Your task to perform on an android device: toggle pop-ups in chrome Image 0: 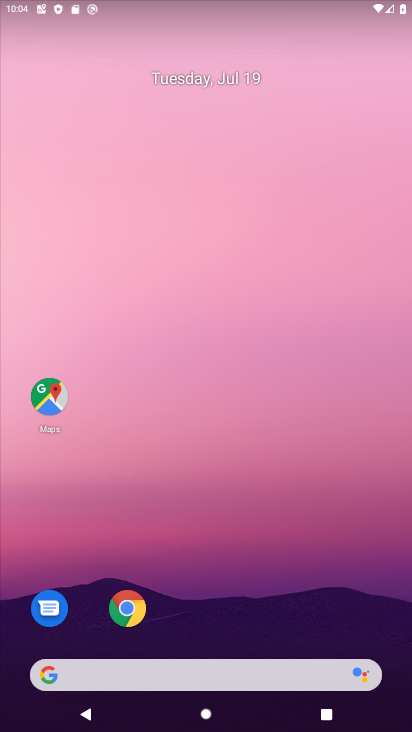
Step 0: click (131, 615)
Your task to perform on an android device: toggle pop-ups in chrome Image 1: 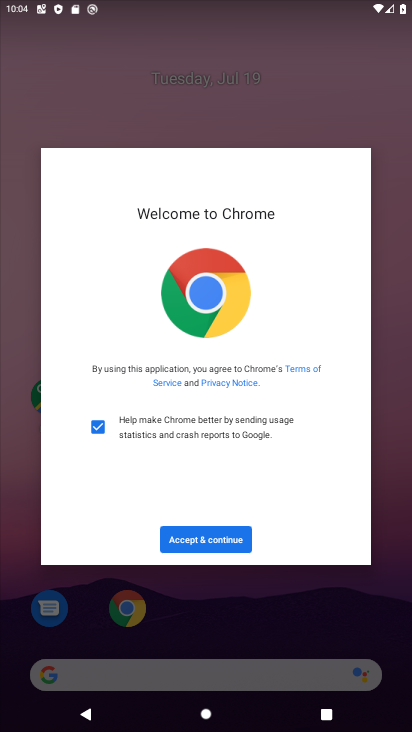
Step 1: click (194, 540)
Your task to perform on an android device: toggle pop-ups in chrome Image 2: 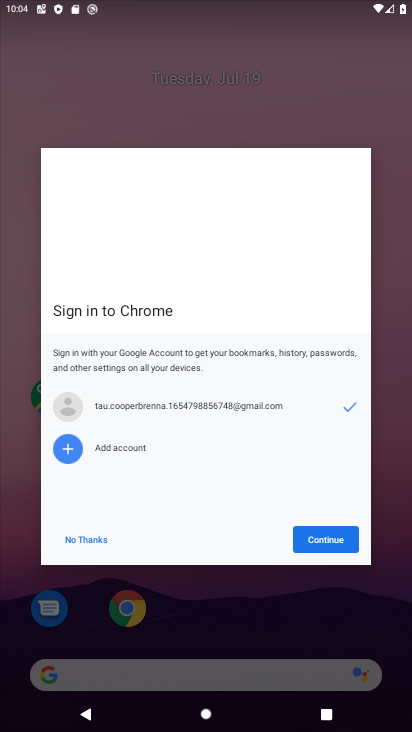
Step 2: click (325, 540)
Your task to perform on an android device: toggle pop-ups in chrome Image 3: 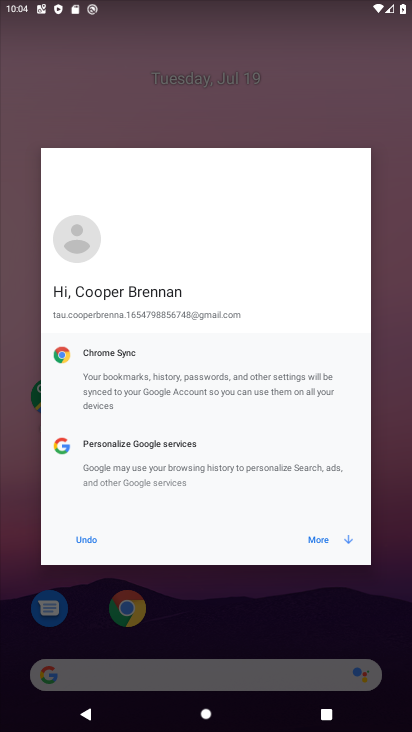
Step 3: click (325, 540)
Your task to perform on an android device: toggle pop-ups in chrome Image 4: 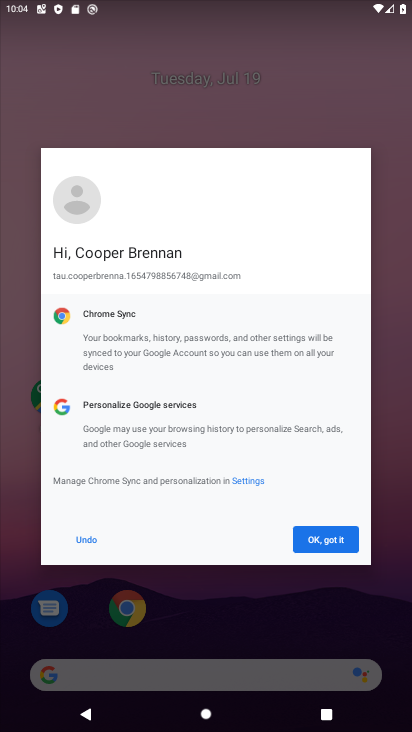
Step 4: click (325, 540)
Your task to perform on an android device: toggle pop-ups in chrome Image 5: 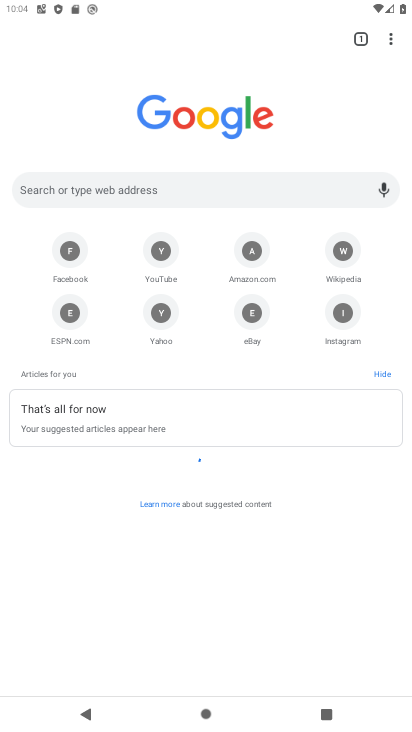
Step 5: click (388, 43)
Your task to perform on an android device: toggle pop-ups in chrome Image 6: 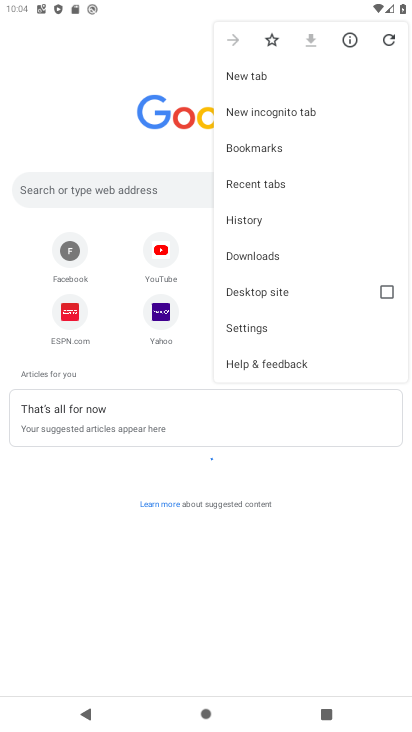
Step 6: click (250, 324)
Your task to perform on an android device: toggle pop-ups in chrome Image 7: 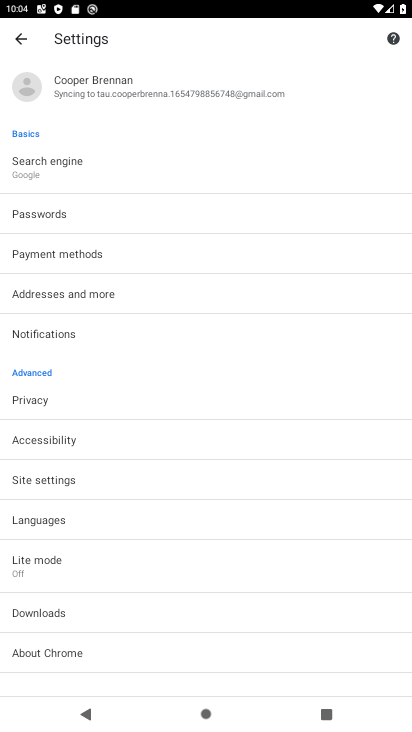
Step 7: click (29, 480)
Your task to perform on an android device: toggle pop-ups in chrome Image 8: 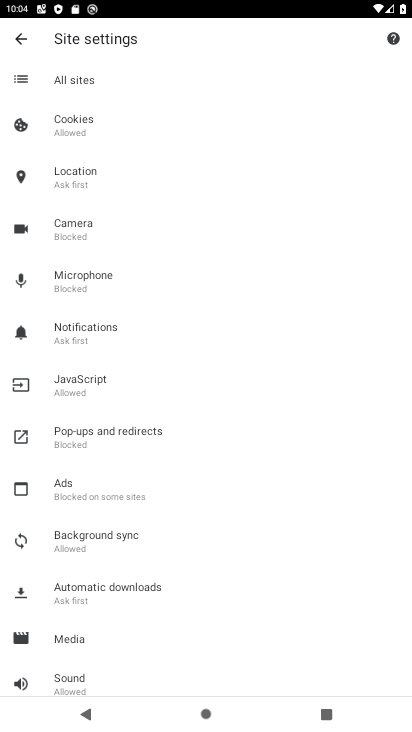
Step 8: drag from (211, 577) to (190, 381)
Your task to perform on an android device: toggle pop-ups in chrome Image 9: 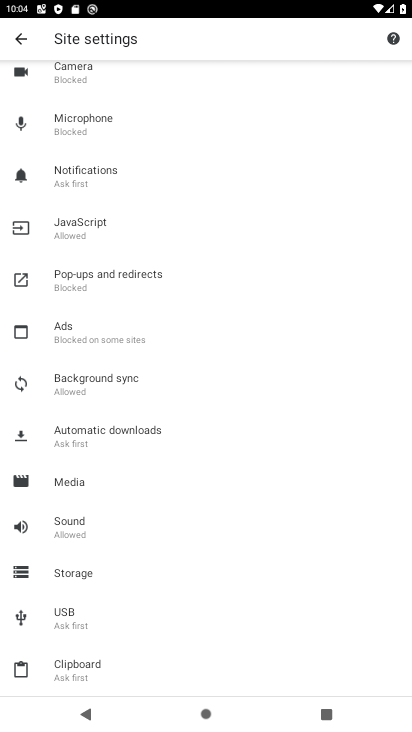
Step 9: click (90, 285)
Your task to perform on an android device: toggle pop-ups in chrome Image 10: 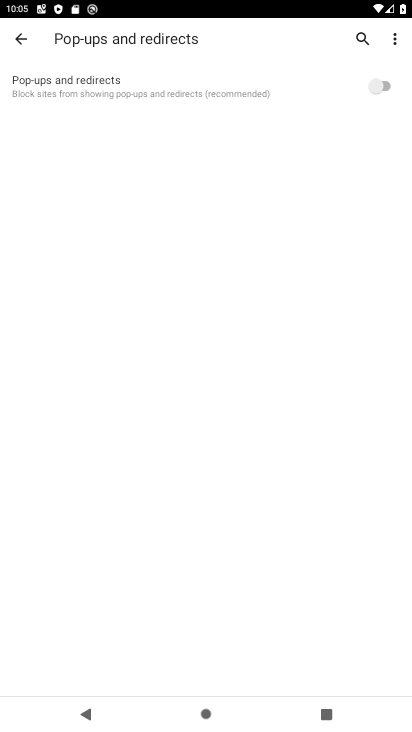
Step 10: click (379, 79)
Your task to perform on an android device: toggle pop-ups in chrome Image 11: 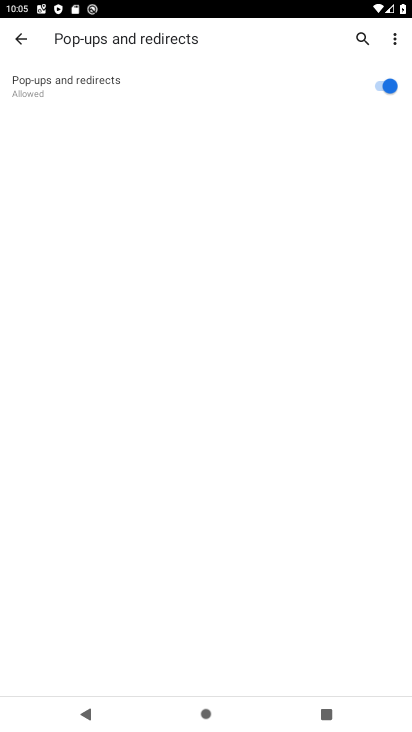
Step 11: task complete